Your task to perform on an android device: search for starred emails in the gmail app Image 0: 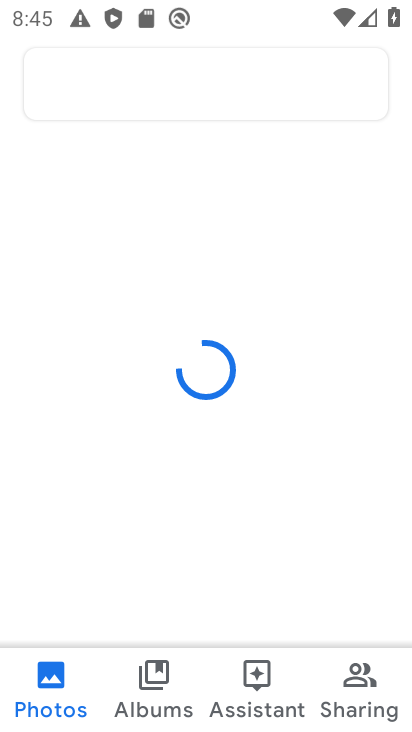
Step 0: drag from (205, 719) to (131, 300)
Your task to perform on an android device: search for starred emails in the gmail app Image 1: 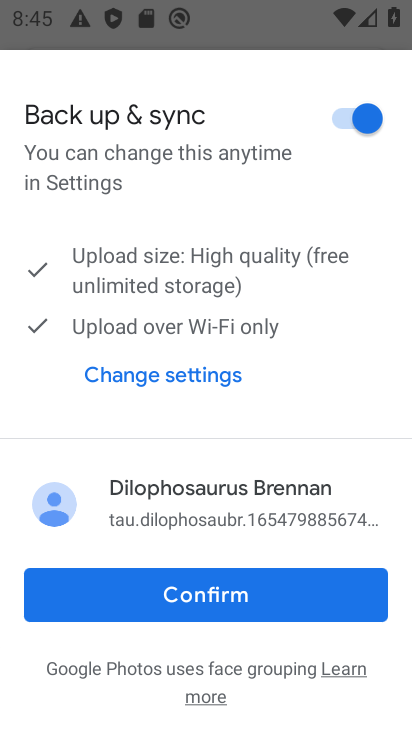
Step 1: press home button
Your task to perform on an android device: search for starred emails in the gmail app Image 2: 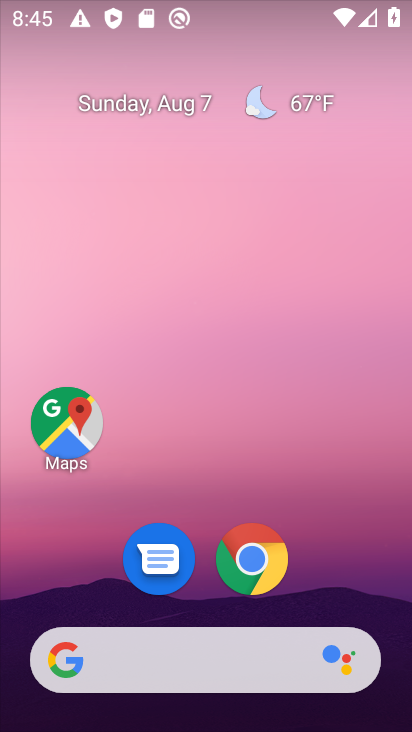
Step 2: drag from (375, 457) to (297, 104)
Your task to perform on an android device: search for starred emails in the gmail app Image 3: 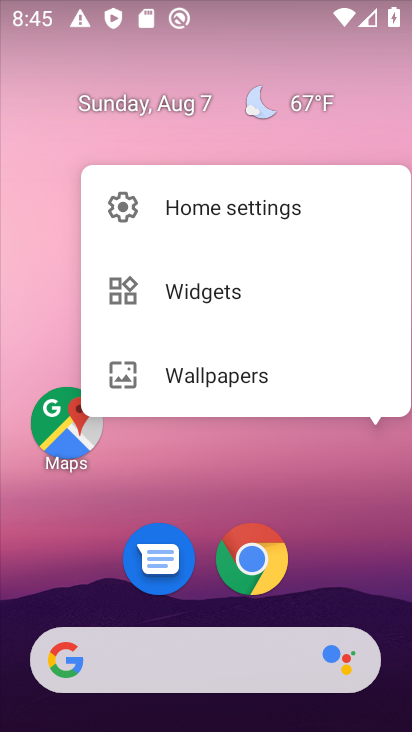
Step 3: click (346, 495)
Your task to perform on an android device: search for starred emails in the gmail app Image 4: 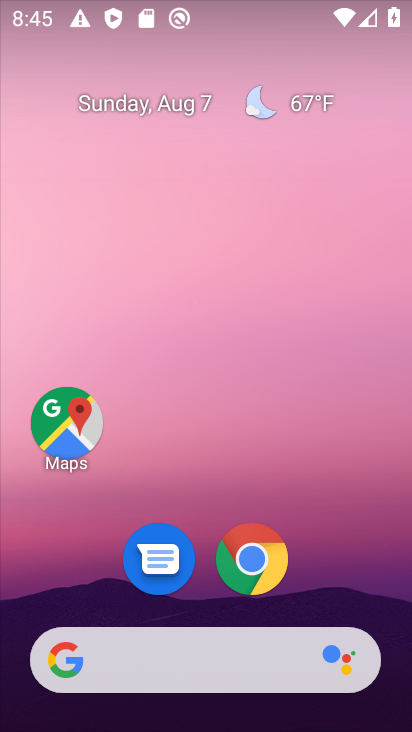
Step 4: drag from (357, 514) to (291, 156)
Your task to perform on an android device: search for starred emails in the gmail app Image 5: 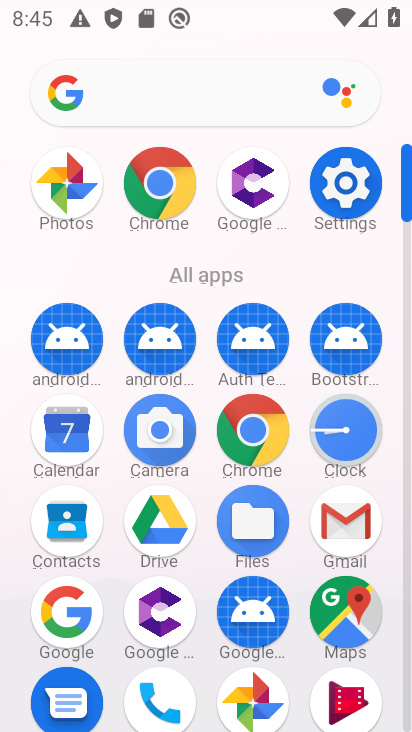
Step 5: drag from (332, 520) to (272, 333)
Your task to perform on an android device: search for starred emails in the gmail app Image 6: 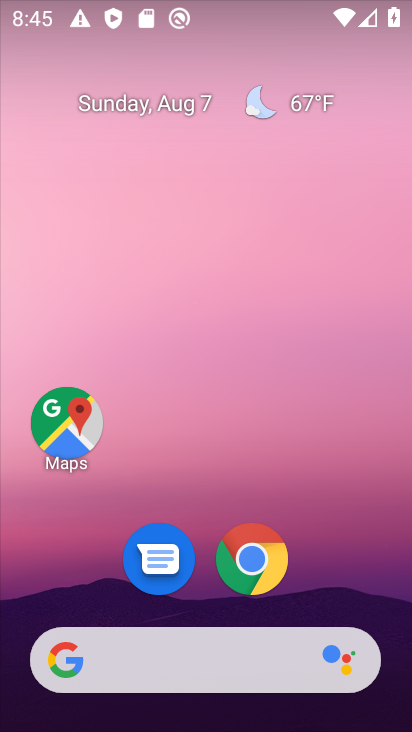
Step 6: drag from (347, 576) to (299, 261)
Your task to perform on an android device: search for starred emails in the gmail app Image 7: 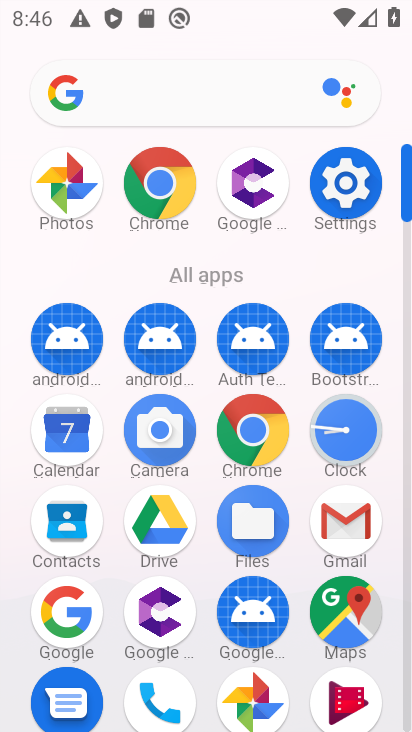
Step 7: click (335, 532)
Your task to perform on an android device: search for starred emails in the gmail app Image 8: 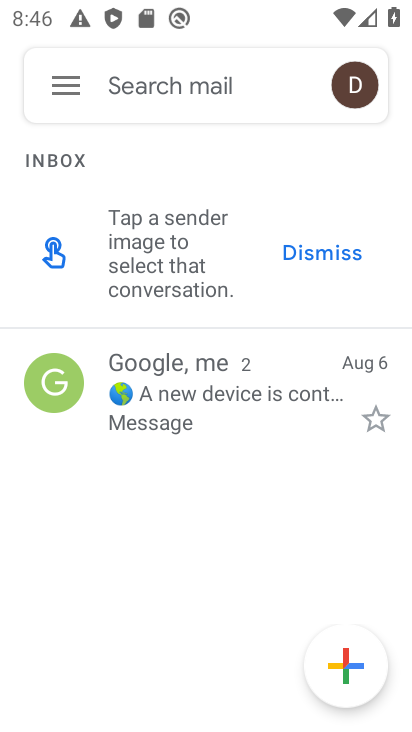
Step 8: click (61, 86)
Your task to perform on an android device: search for starred emails in the gmail app Image 9: 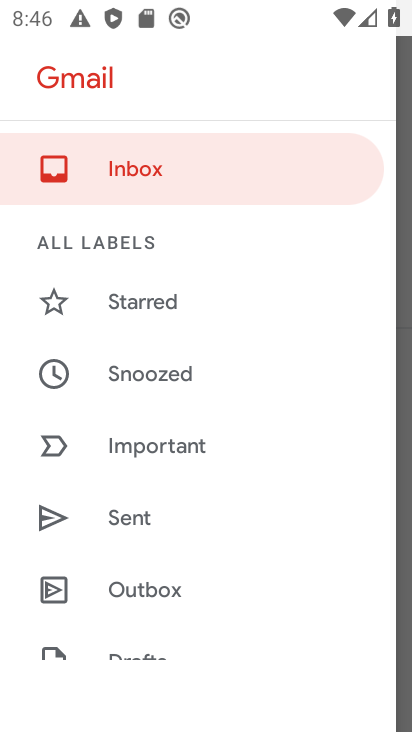
Step 9: click (157, 309)
Your task to perform on an android device: search for starred emails in the gmail app Image 10: 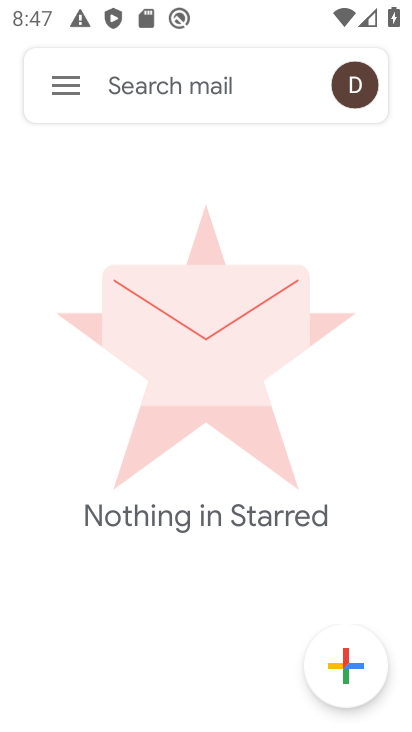
Step 10: task complete